Your task to perform on an android device: turn off data saver in the chrome app Image 0: 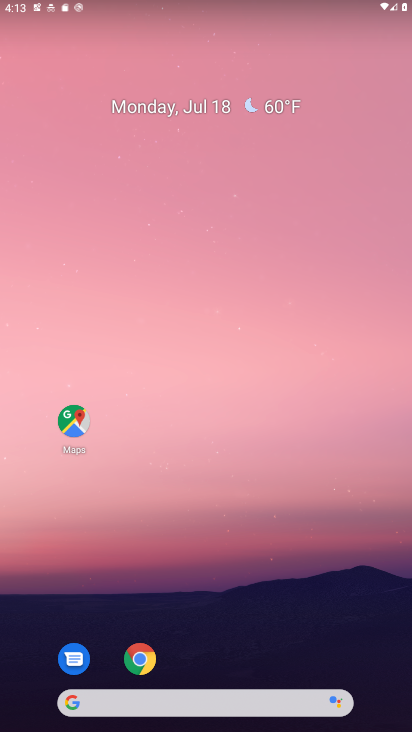
Step 0: drag from (165, 664) to (264, 10)
Your task to perform on an android device: turn off data saver in the chrome app Image 1: 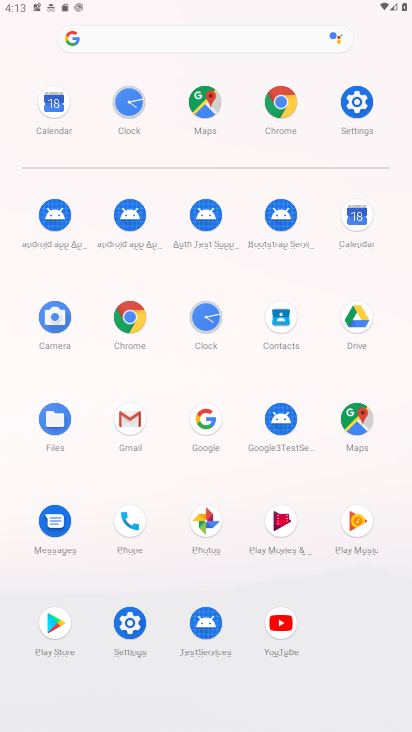
Step 1: click (135, 326)
Your task to perform on an android device: turn off data saver in the chrome app Image 2: 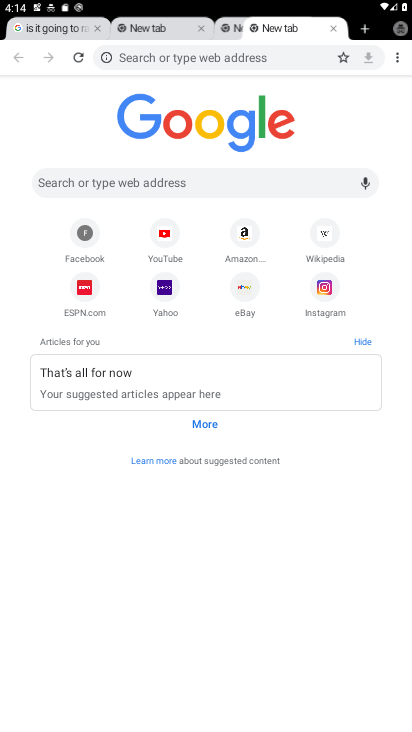
Step 2: drag from (401, 59) to (331, 267)
Your task to perform on an android device: turn off data saver in the chrome app Image 3: 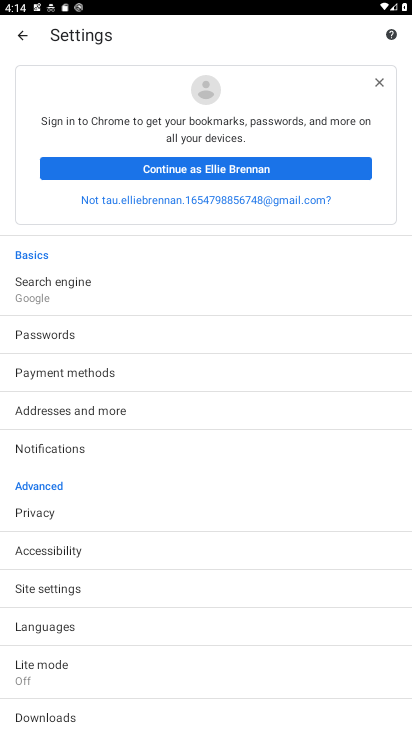
Step 3: click (62, 682)
Your task to perform on an android device: turn off data saver in the chrome app Image 4: 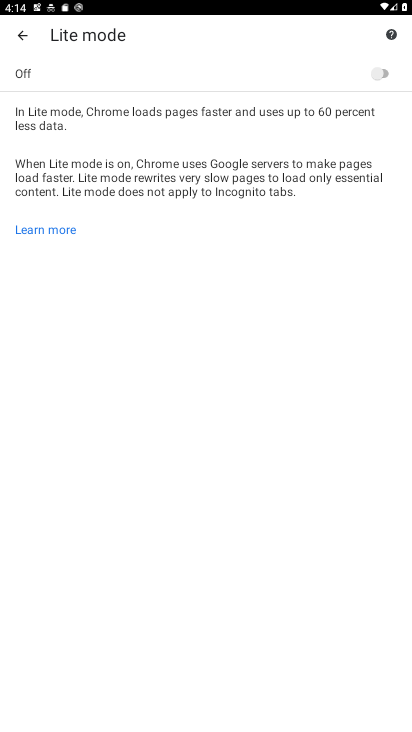
Step 4: task complete